Your task to perform on an android device: Open calendar and show me the third week of next month Image 0: 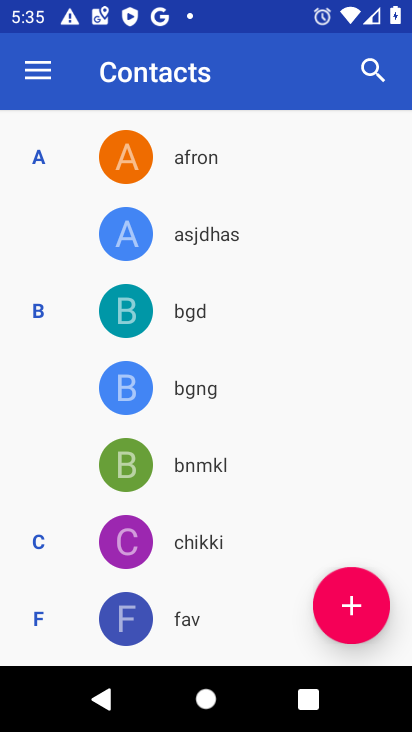
Step 0: press home button
Your task to perform on an android device: Open calendar and show me the third week of next month Image 1: 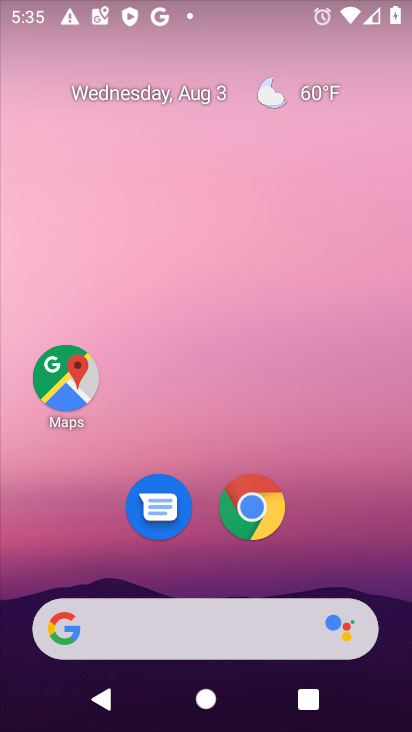
Step 1: drag from (304, 521) to (222, 1)
Your task to perform on an android device: Open calendar and show me the third week of next month Image 2: 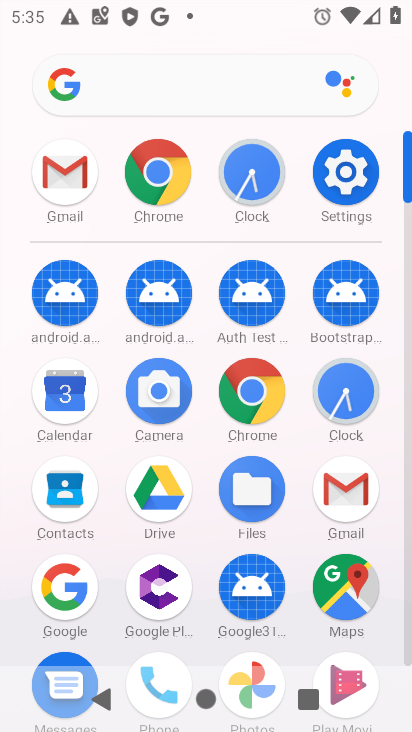
Step 2: click (60, 399)
Your task to perform on an android device: Open calendar and show me the third week of next month Image 3: 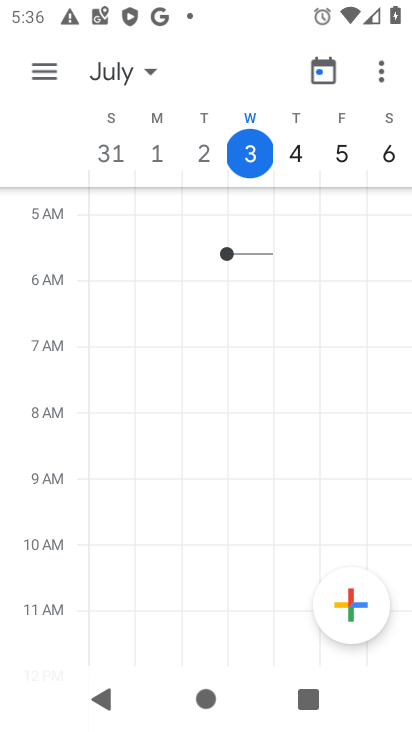
Step 3: click (112, 67)
Your task to perform on an android device: Open calendar and show me the third week of next month Image 4: 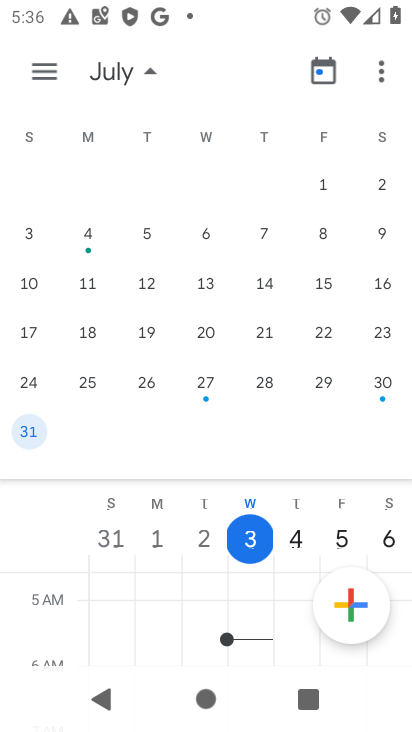
Step 4: drag from (337, 224) to (44, 238)
Your task to perform on an android device: Open calendar and show me the third week of next month Image 5: 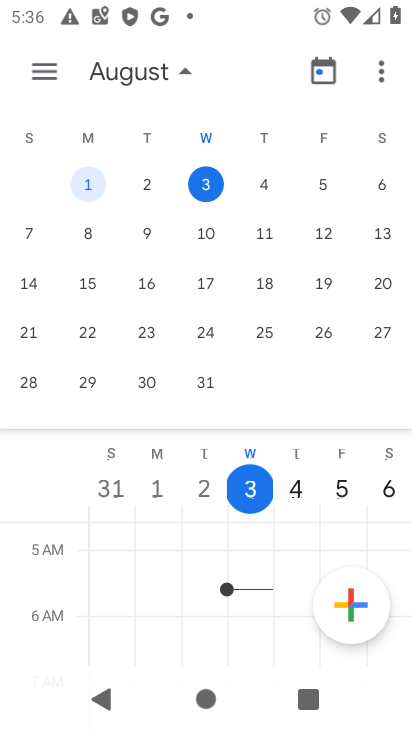
Step 5: drag from (339, 253) to (43, 265)
Your task to perform on an android device: Open calendar and show me the third week of next month Image 6: 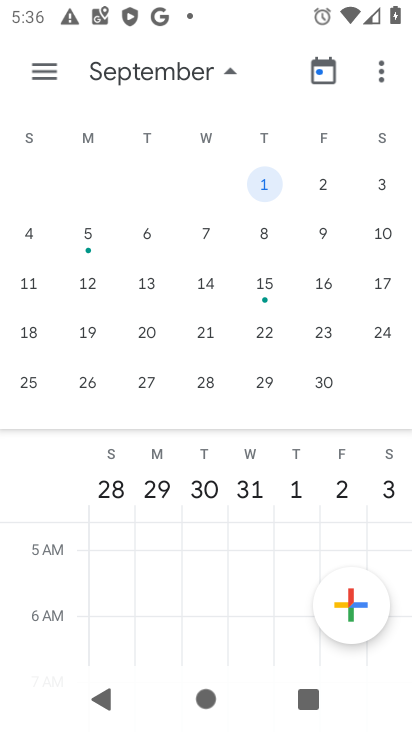
Step 6: click (148, 327)
Your task to perform on an android device: Open calendar and show me the third week of next month Image 7: 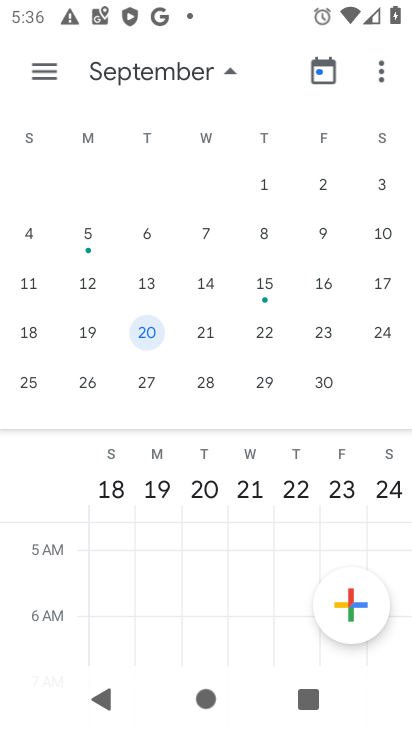
Step 7: task complete